Your task to perform on an android device: turn on the 12-hour format for clock Image 0: 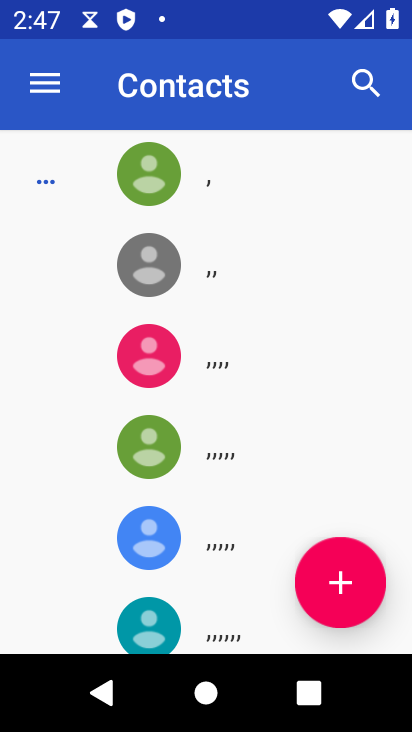
Step 0: press back button
Your task to perform on an android device: turn on the 12-hour format for clock Image 1: 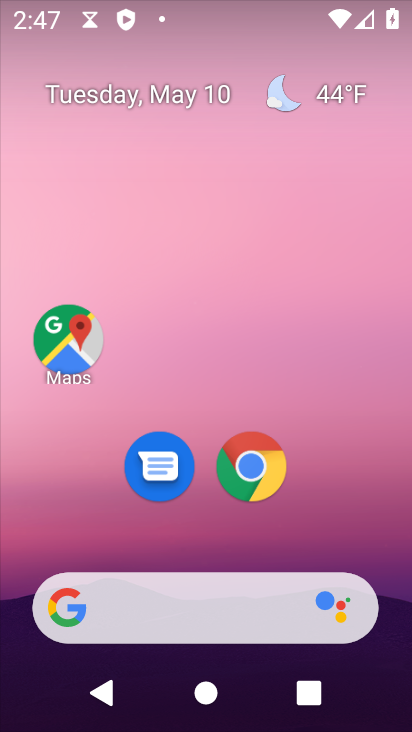
Step 1: drag from (301, 539) to (320, 9)
Your task to perform on an android device: turn on the 12-hour format for clock Image 2: 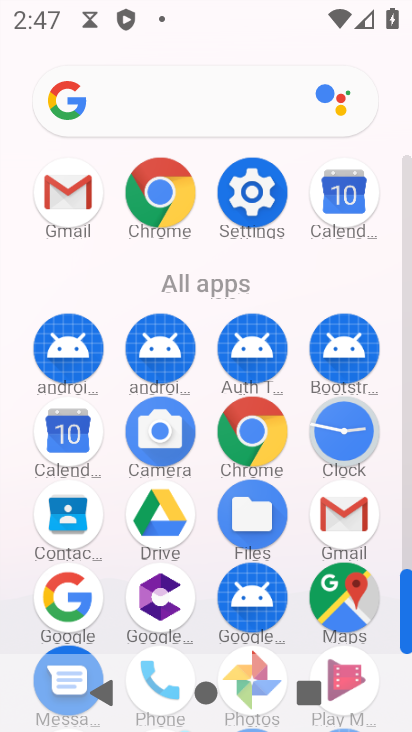
Step 2: click (345, 431)
Your task to perform on an android device: turn on the 12-hour format for clock Image 3: 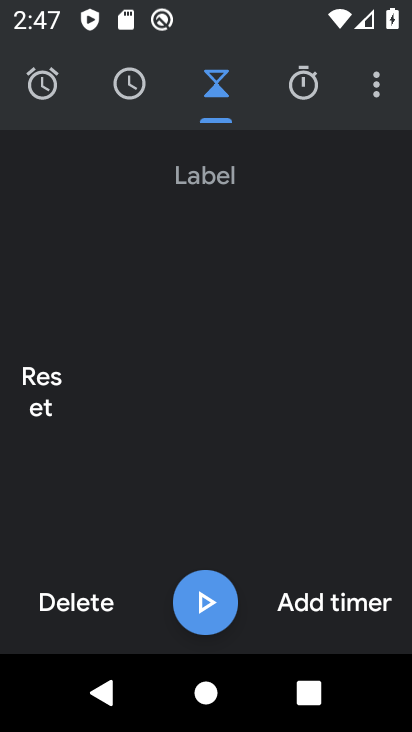
Step 3: click (371, 87)
Your task to perform on an android device: turn on the 12-hour format for clock Image 4: 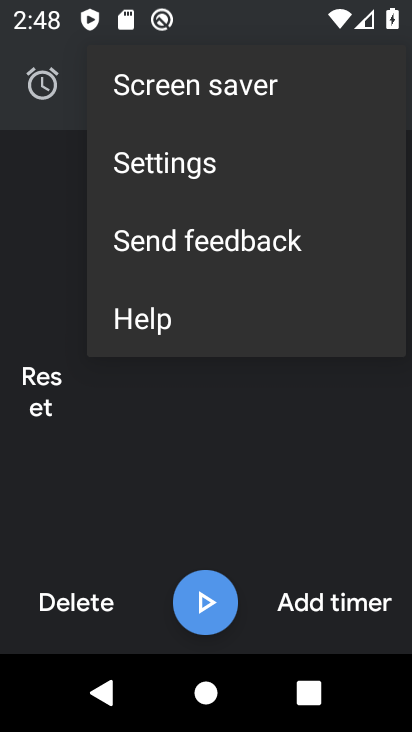
Step 4: click (182, 172)
Your task to perform on an android device: turn on the 12-hour format for clock Image 5: 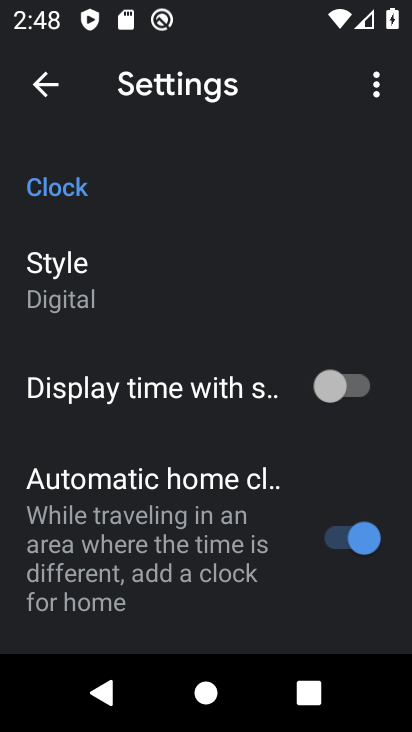
Step 5: drag from (151, 420) to (195, 291)
Your task to perform on an android device: turn on the 12-hour format for clock Image 6: 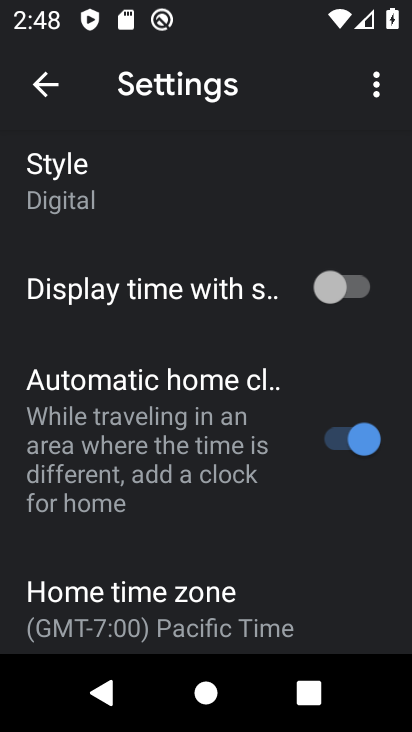
Step 6: drag from (127, 541) to (200, 350)
Your task to perform on an android device: turn on the 12-hour format for clock Image 7: 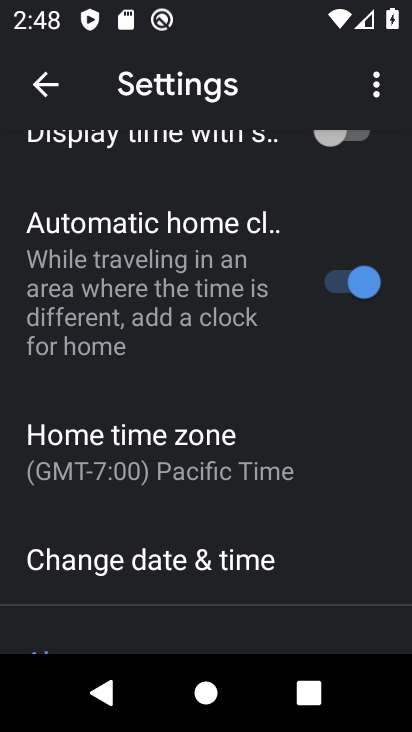
Step 7: drag from (127, 514) to (184, 366)
Your task to perform on an android device: turn on the 12-hour format for clock Image 8: 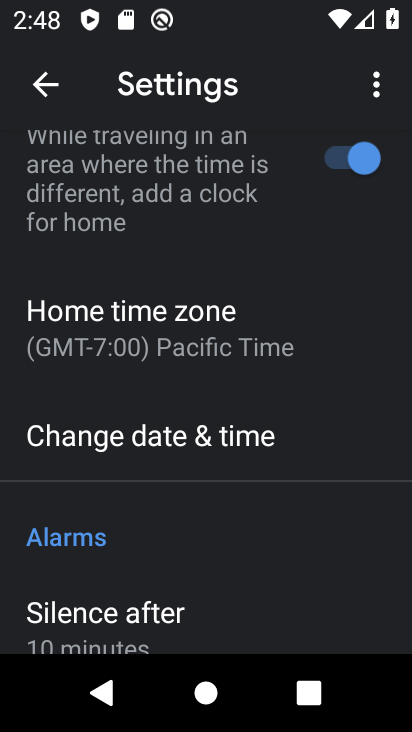
Step 8: click (104, 439)
Your task to perform on an android device: turn on the 12-hour format for clock Image 9: 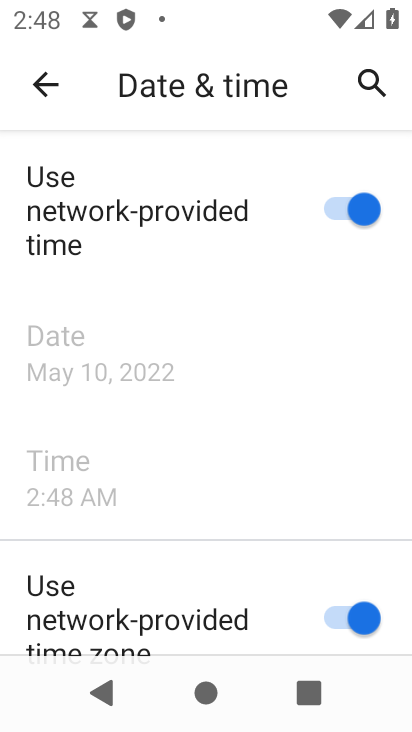
Step 9: task complete